Your task to perform on an android device: turn notification dots off Image 0: 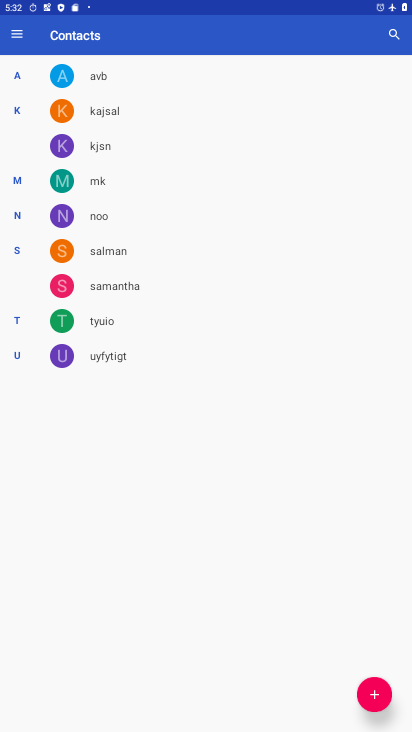
Step 0: press home button
Your task to perform on an android device: turn notification dots off Image 1: 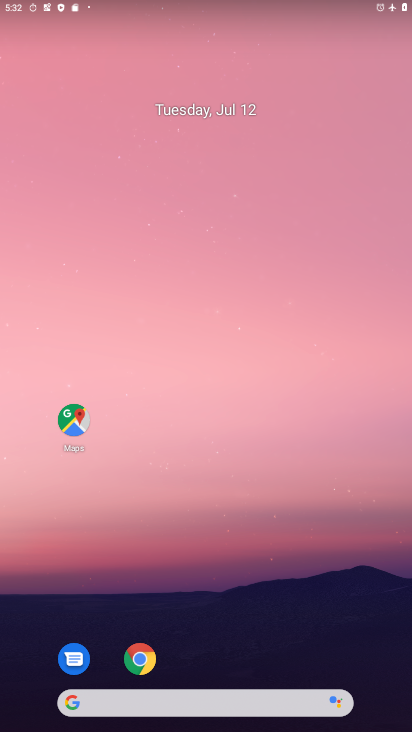
Step 1: drag from (227, 437) to (267, 241)
Your task to perform on an android device: turn notification dots off Image 2: 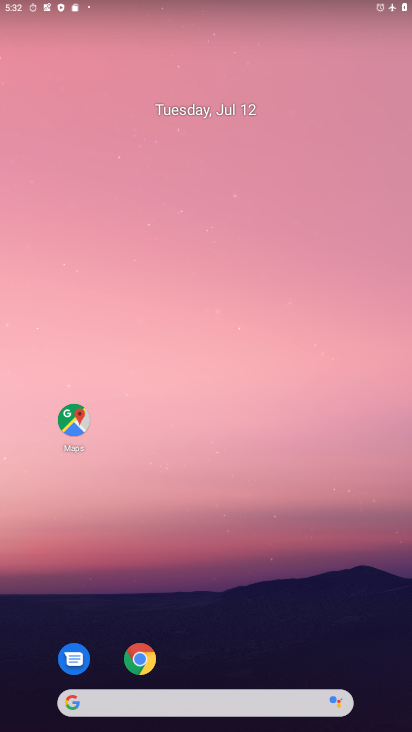
Step 2: drag from (192, 551) to (211, 209)
Your task to perform on an android device: turn notification dots off Image 3: 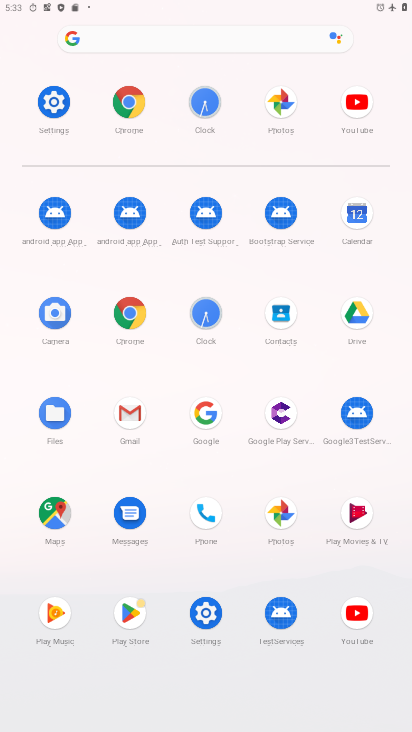
Step 3: click (219, 625)
Your task to perform on an android device: turn notification dots off Image 4: 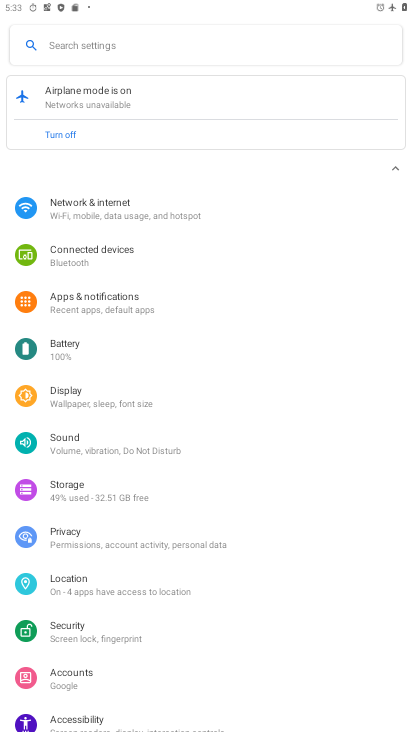
Step 4: click (68, 298)
Your task to perform on an android device: turn notification dots off Image 5: 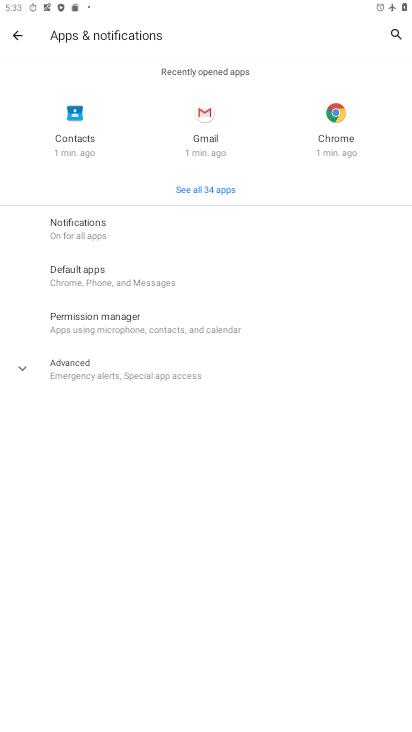
Step 5: click (108, 230)
Your task to perform on an android device: turn notification dots off Image 6: 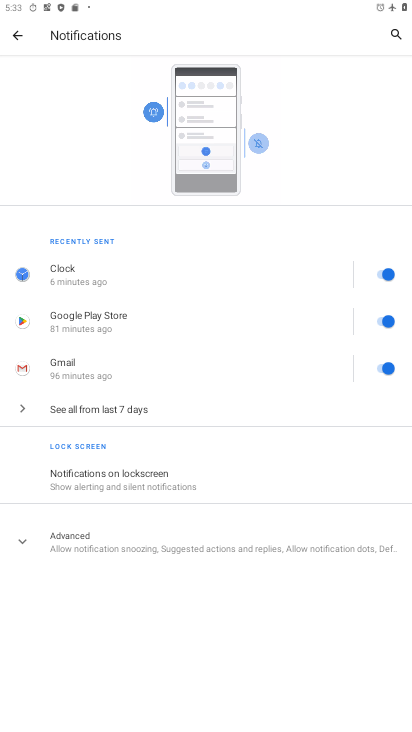
Step 6: click (51, 538)
Your task to perform on an android device: turn notification dots off Image 7: 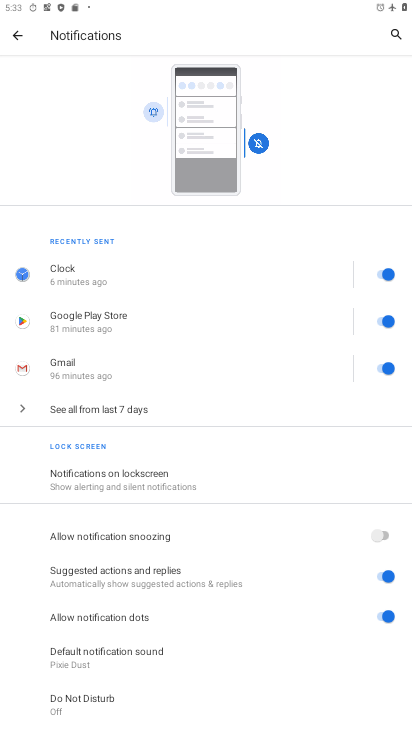
Step 7: click (380, 617)
Your task to perform on an android device: turn notification dots off Image 8: 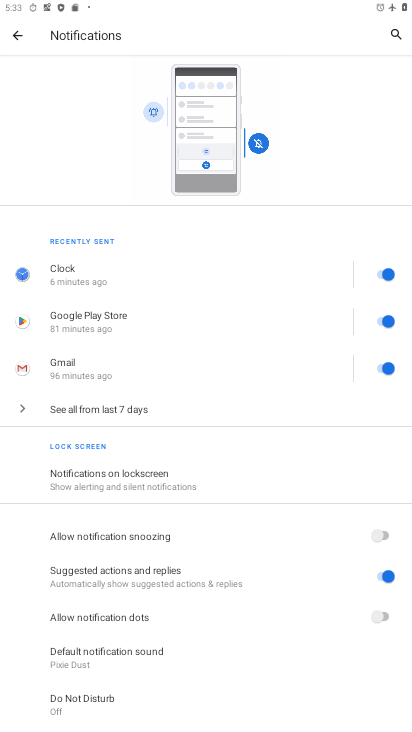
Step 8: task complete